Your task to perform on an android device: turn off airplane mode Image 0: 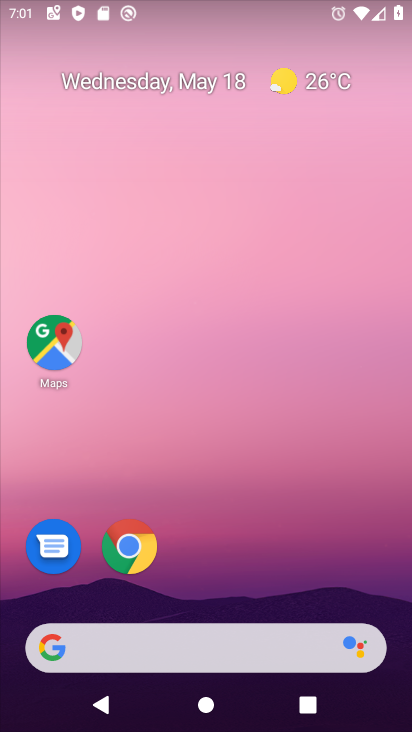
Step 0: drag from (240, 4) to (274, 580)
Your task to perform on an android device: turn off airplane mode Image 1: 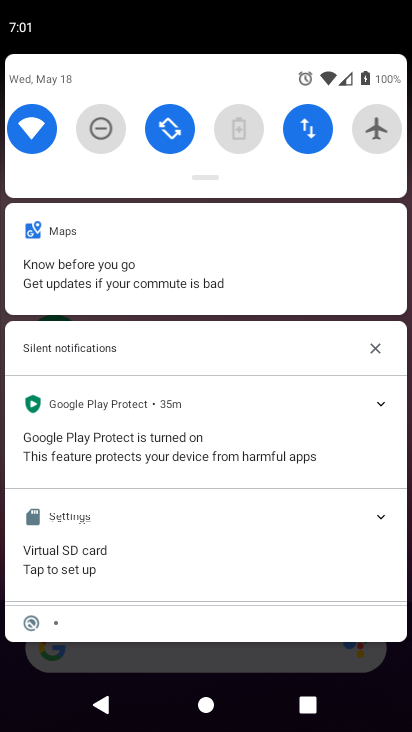
Step 1: task complete